Your task to perform on an android device: Go to network settings Image 0: 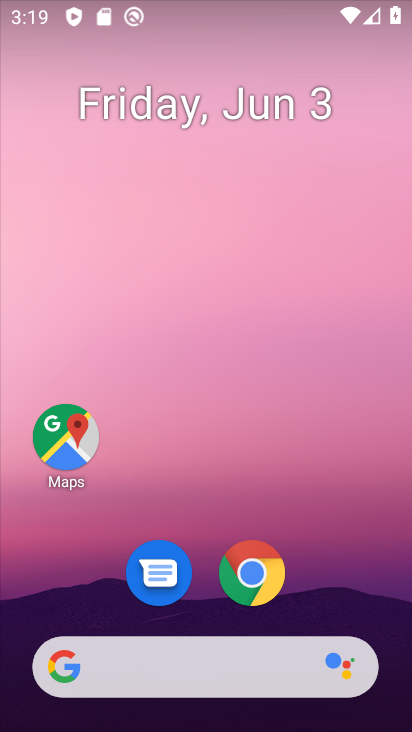
Step 0: drag from (397, 716) to (331, 126)
Your task to perform on an android device: Go to network settings Image 1: 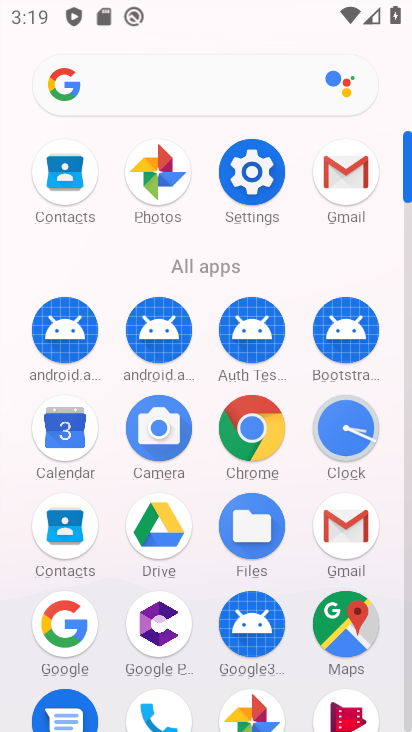
Step 1: click (246, 175)
Your task to perform on an android device: Go to network settings Image 2: 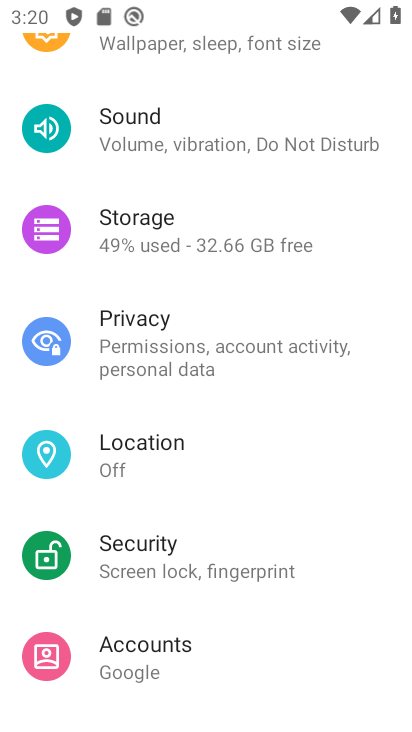
Step 2: drag from (261, 206) to (276, 639)
Your task to perform on an android device: Go to network settings Image 3: 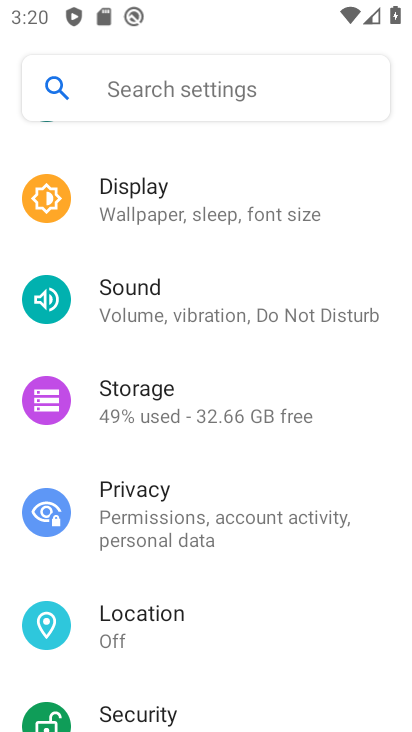
Step 3: drag from (240, 148) to (318, 726)
Your task to perform on an android device: Go to network settings Image 4: 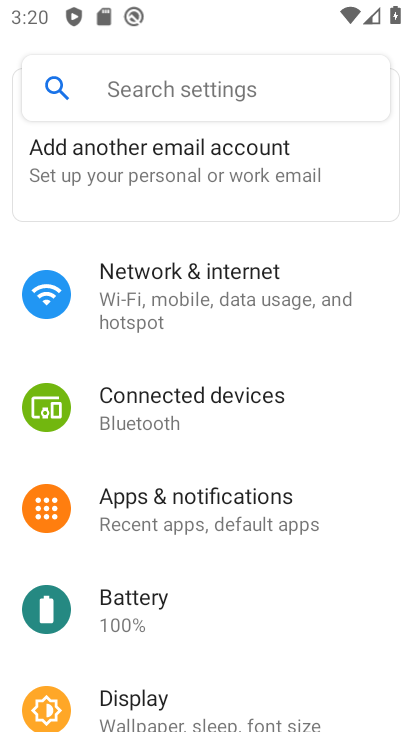
Step 4: click (214, 283)
Your task to perform on an android device: Go to network settings Image 5: 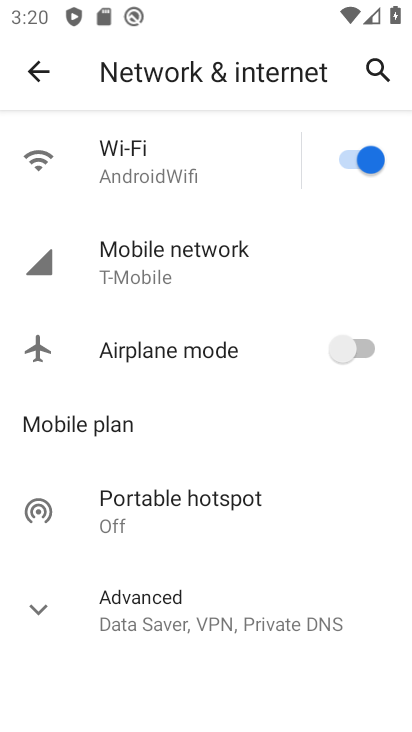
Step 5: click (127, 234)
Your task to perform on an android device: Go to network settings Image 6: 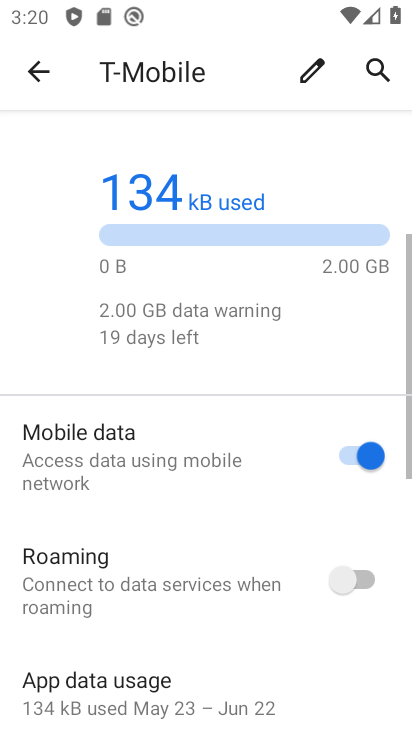
Step 6: click (140, 266)
Your task to perform on an android device: Go to network settings Image 7: 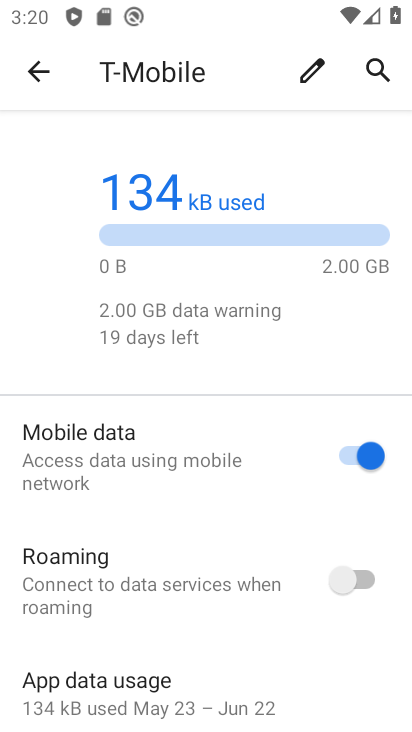
Step 7: task complete